Your task to perform on an android device: Clear all items from cart on costco. Image 0: 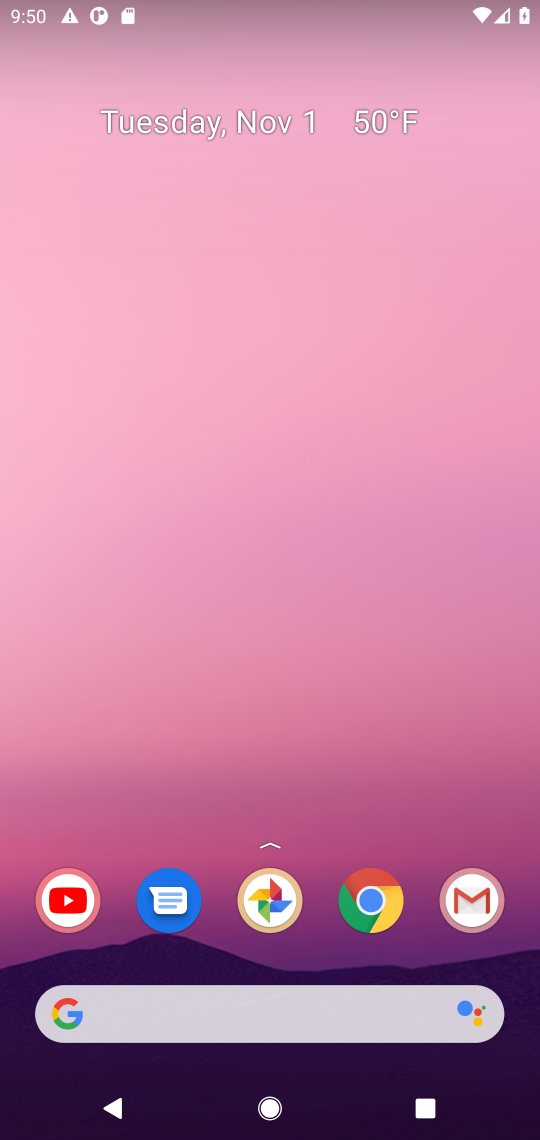
Step 0: click (389, 892)
Your task to perform on an android device: Clear all items from cart on costco. Image 1: 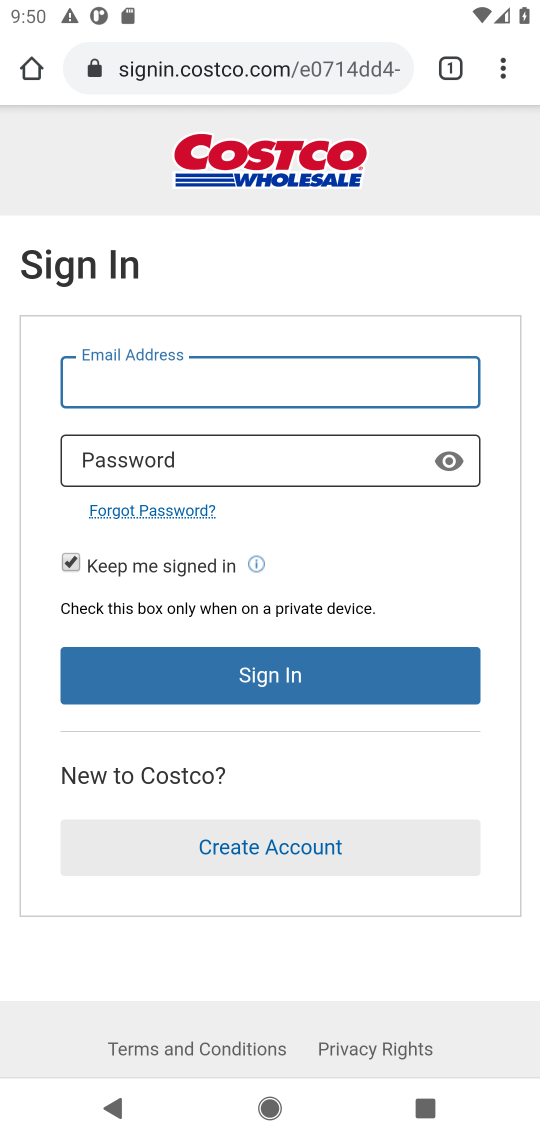
Step 1: press back button
Your task to perform on an android device: Clear all items from cart on costco. Image 2: 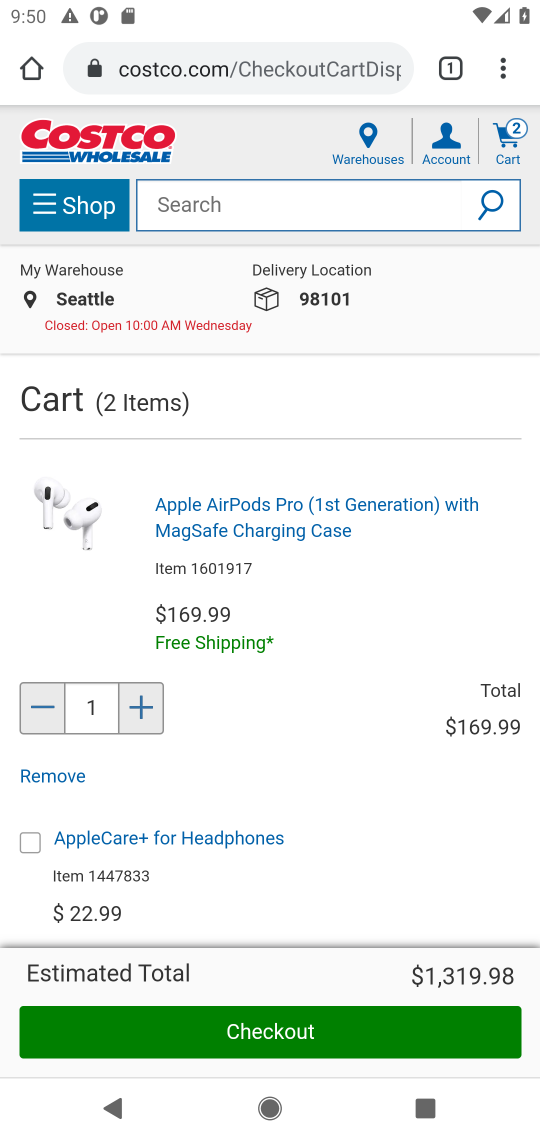
Step 2: click (73, 785)
Your task to perform on an android device: Clear all items from cart on costco. Image 3: 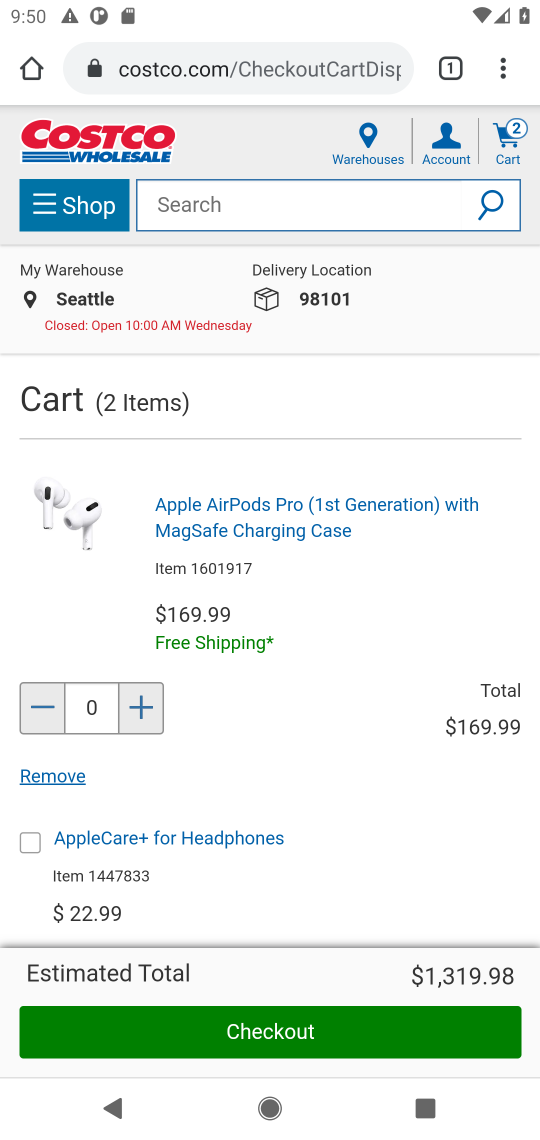
Step 3: drag from (268, 803) to (327, 249)
Your task to perform on an android device: Clear all items from cart on costco. Image 4: 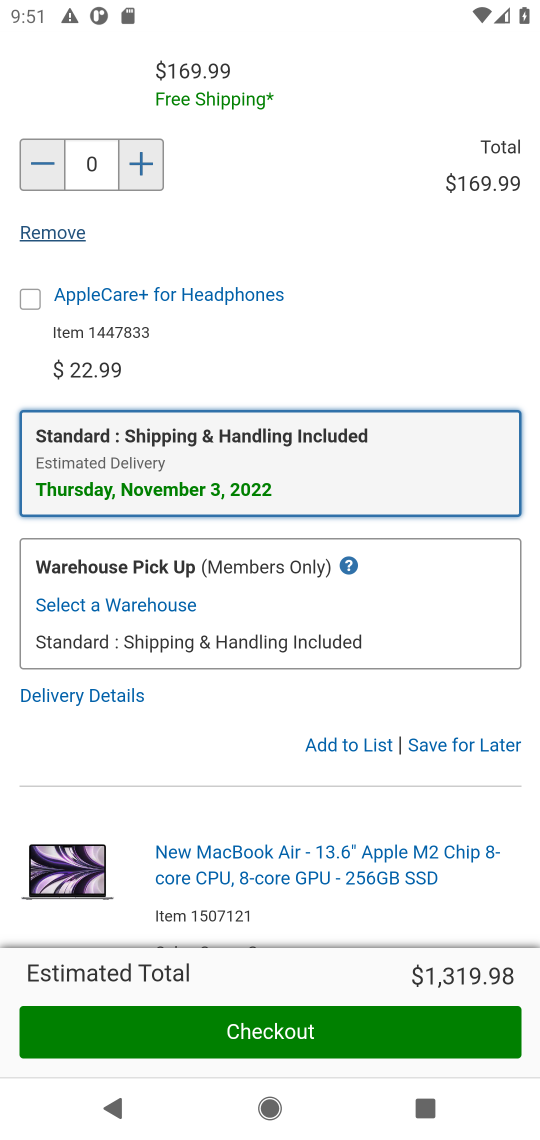
Step 4: drag from (335, 641) to (312, 204)
Your task to perform on an android device: Clear all items from cart on costco. Image 5: 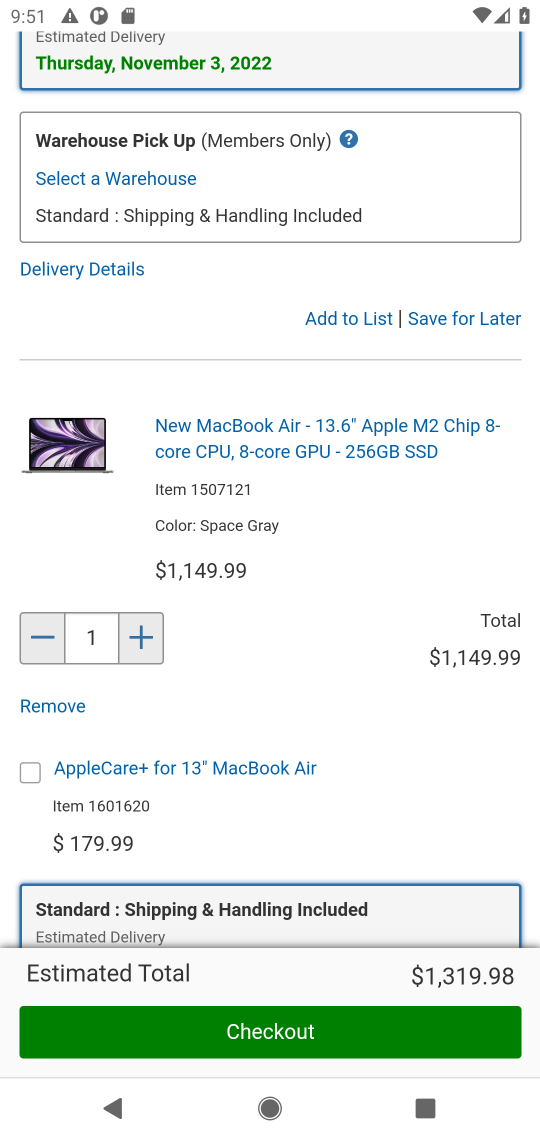
Step 5: click (50, 704)
Your task to perform on an android device: Clear all items from cart on costco. Image 6: 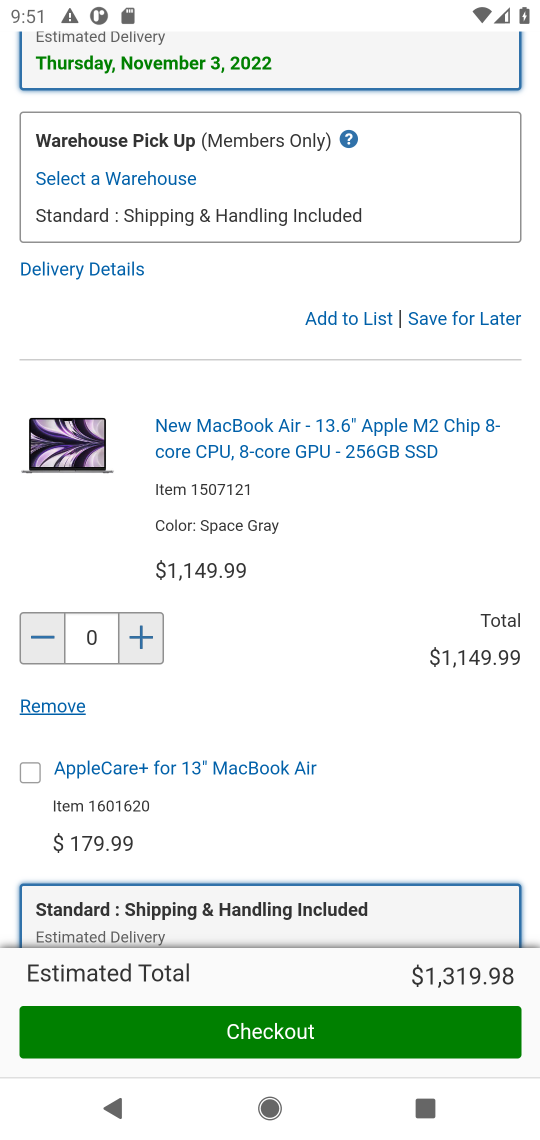
Step 6: task complete